Your task to perform on an android device: change keyboard looks Image 0: 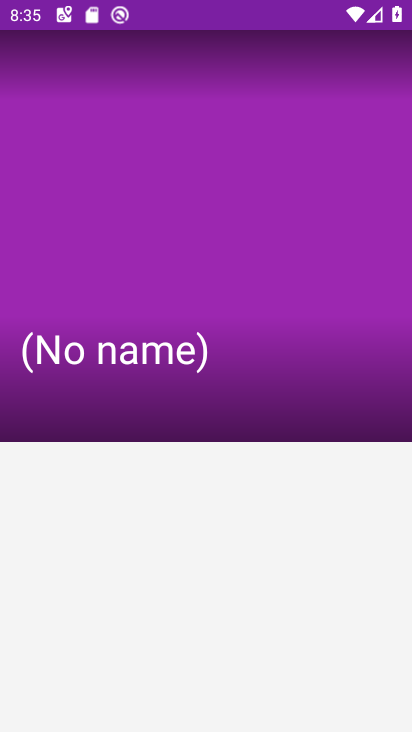
Step 0: press home button
Your task to perform on an android device: change keyboard looks Image 1: 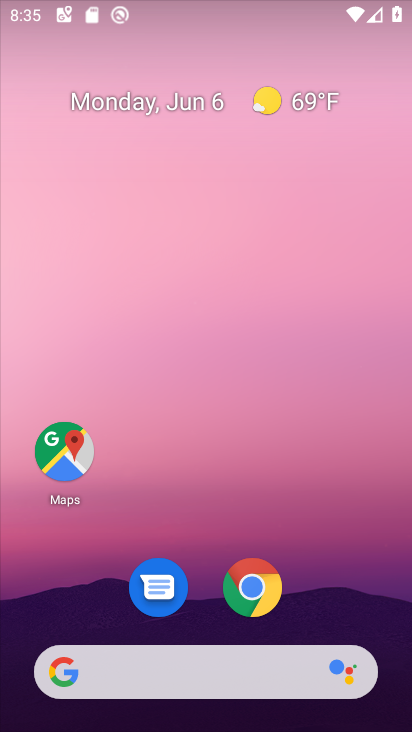
Step 1: drag from (310, 529) to (310, 236)
Your task to perform on an android device: change keyboard looks Image 2: 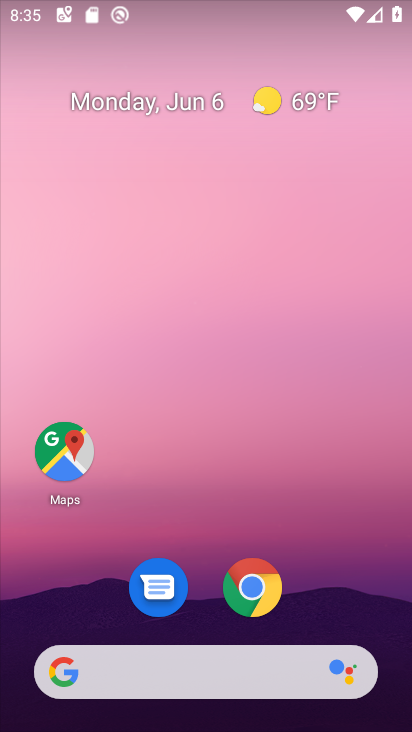
Step 2: drag from (315, 580) to (301, 174)
Your task to perform on an android device: change keyboard looks Image 3: 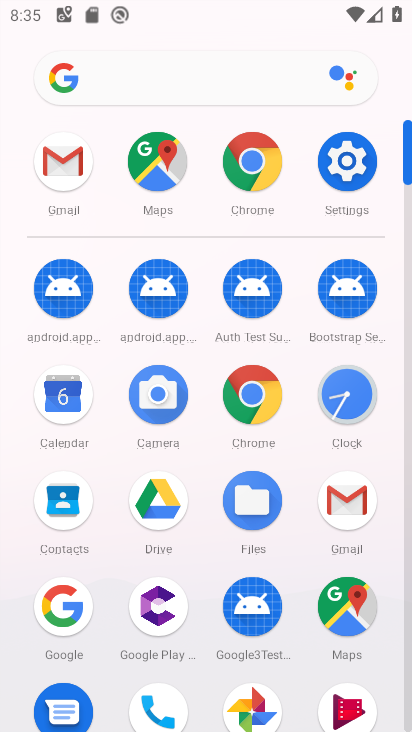
Step 3: click (319, 169)
Your task to perform on an android device: change keyboard looks Image 4: 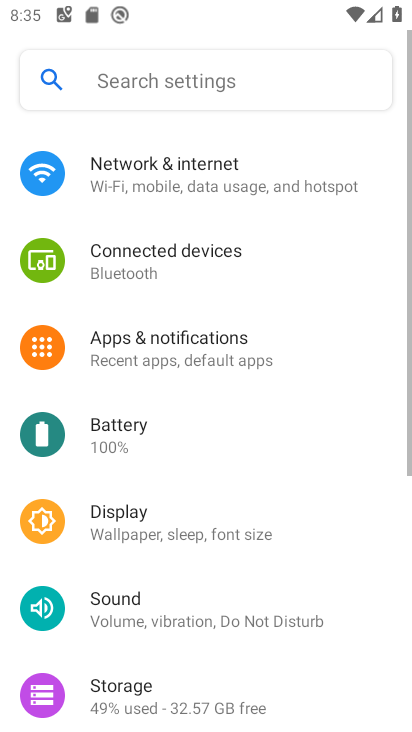
Step 4: drag from (191, 651) to (268, 265)
Your task to perform on an android device: change keyboard looks Image 5: 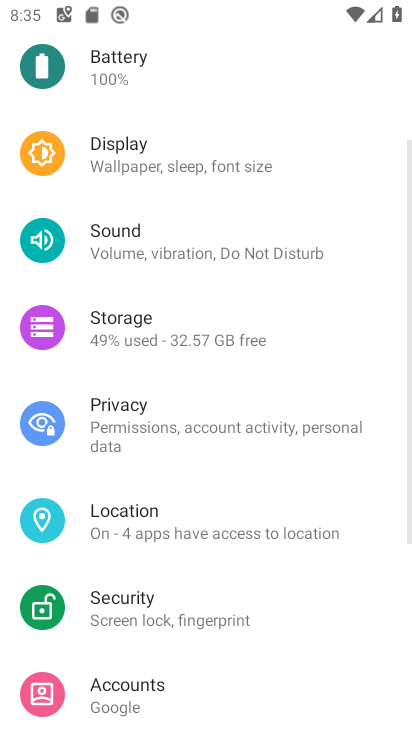
Step 5: drag from (237, 652) to (280, 313)
Your task to perform on an android device: change keyboard looks Image 6: 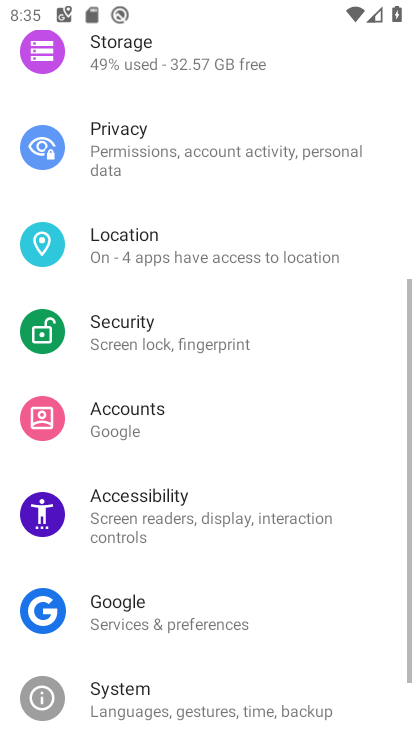
Step 6: drag from (226, 668) to (247, 349)
Your task to perform on an android device: change keyboard looks Image 7: 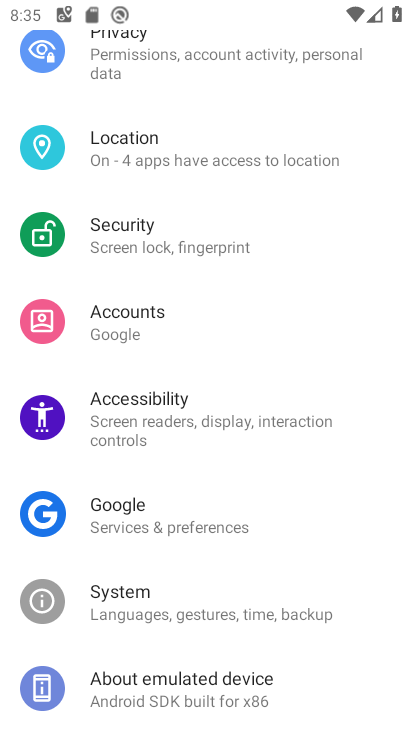
Step 7: click (182, 688)
Your task to perform on an android device: change keyboard looks Image 8: 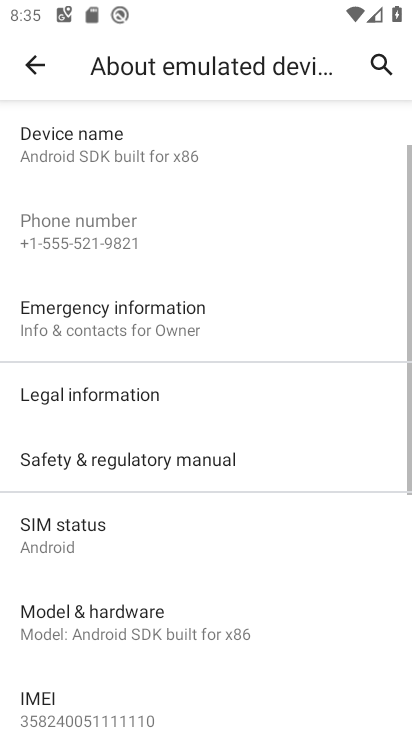
Step 8: press back button
Your task to perform on an android device: change keyboard looks Image 9: 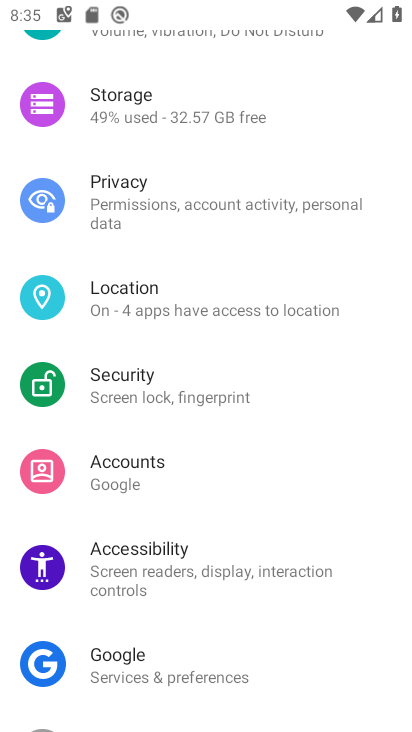
Step 9: click (204, 624)
Your task to perform on an android device: change keyboard looks Image 10: 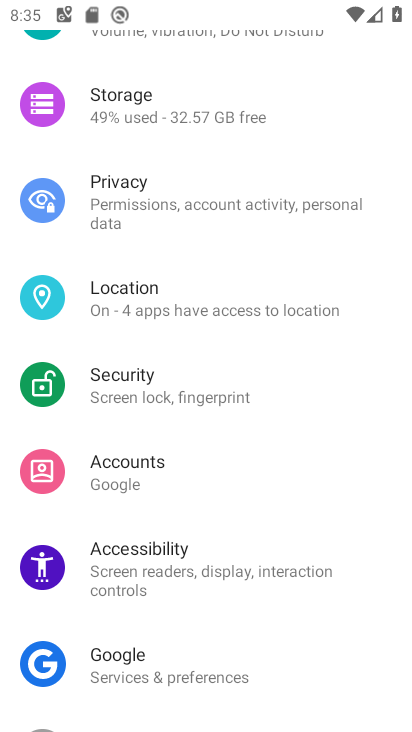
Step 10: press back button
Your task to perform on an android device: change keyboard looks Image 11: 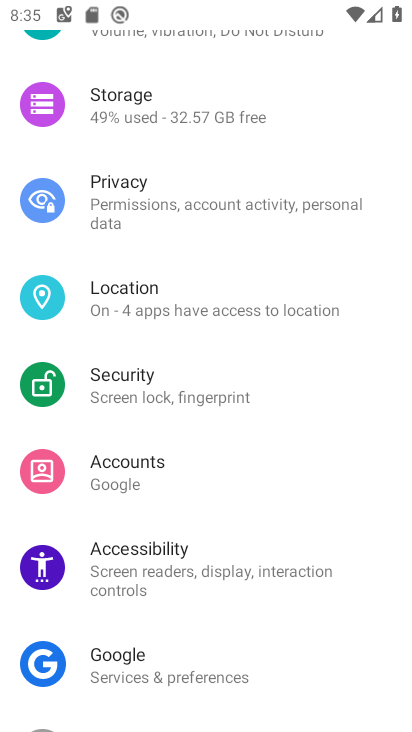
Step 11: drag from (296, 659) to (324, 429)
Your task to perform on an android device: change keyboard looks Image 12: 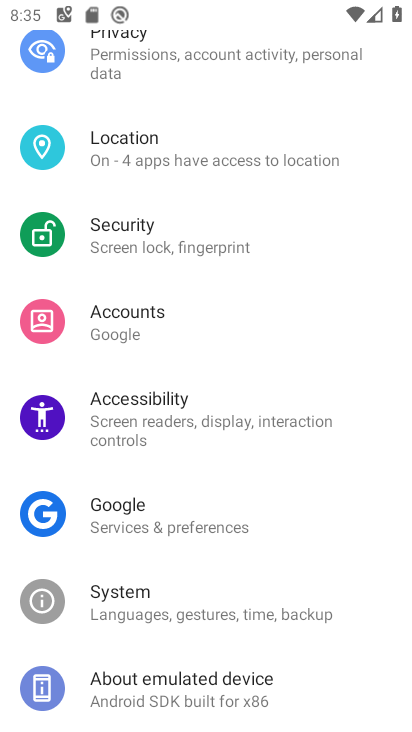
Step 12: click (217, 609)
Your task to perform on an android device: change keyboard looks Image 13: 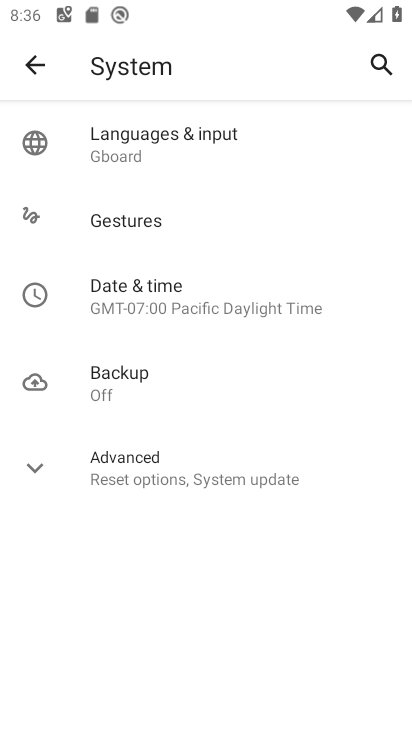
Step 13: click (193, 133)
Your task to perform on an android device: change keyboard looks Image 14: 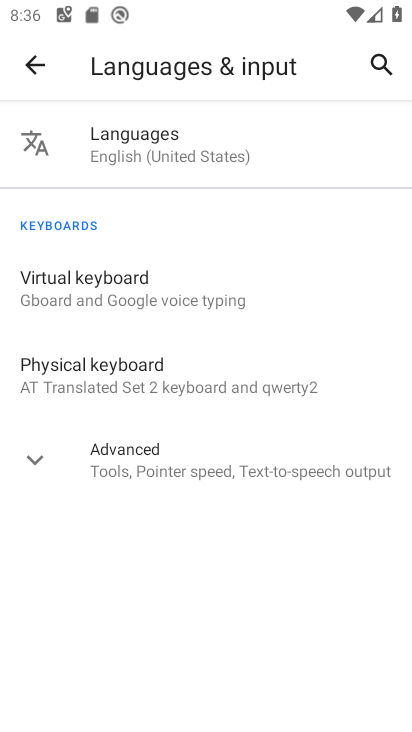
Step 14: click (100, 281)
Your task to perform on an android device: change keyboard looks Image 15: 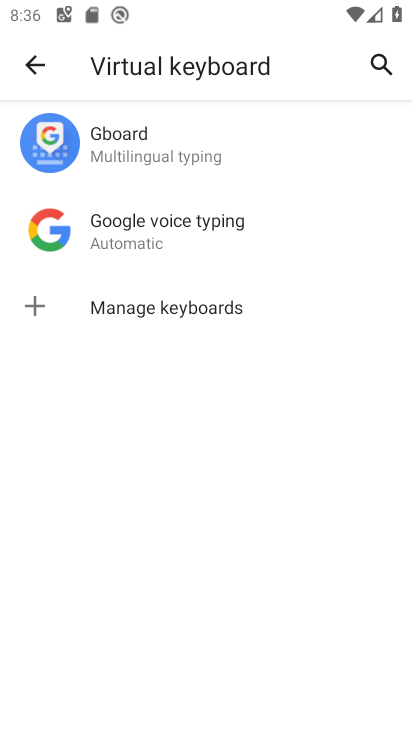
Step 15: click (153, 156)
Your task to perform on an android device: change keyboard looks Image 16: 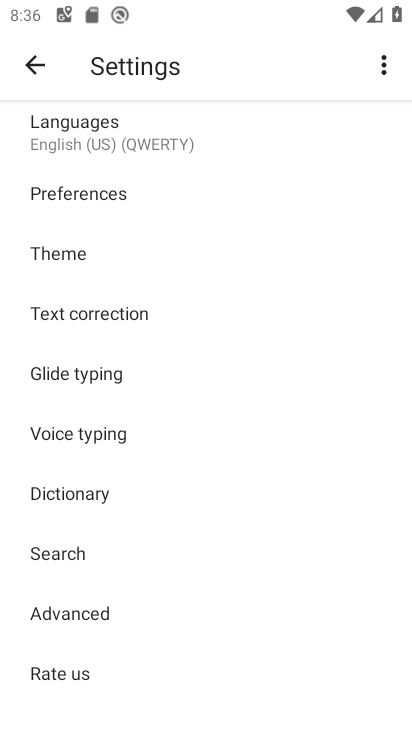
Step 16: click (114, 256)
Your task to perform on an android device: change keyboard looks Image 17: 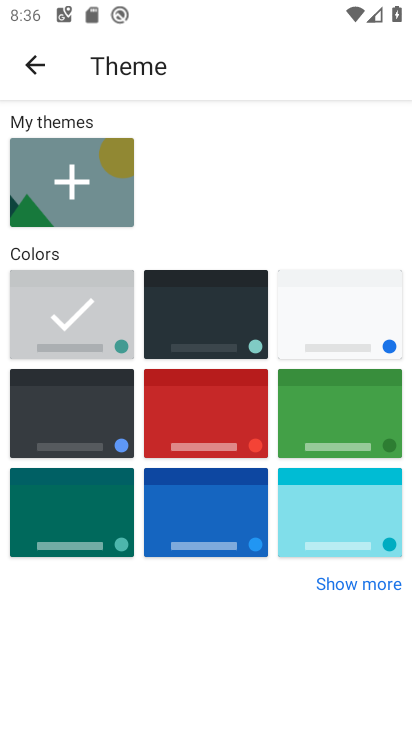
Step 17: click (224, 318)
Your task to perform on an android device: change keyboard looks Image 18: 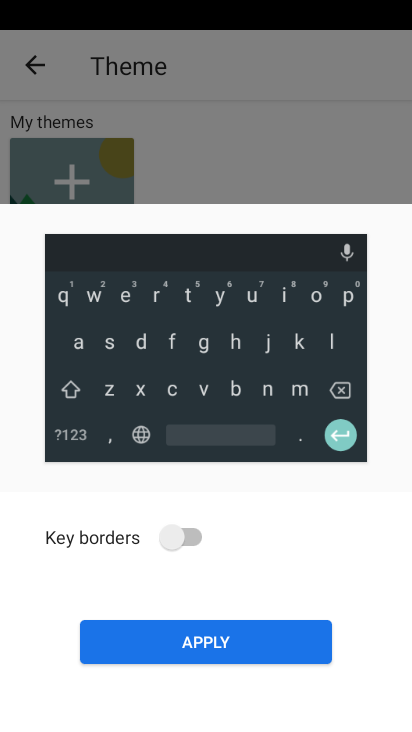
Step 18: click (206, 642)
Your task to perform on an android device: change keyboard looks Image 19: 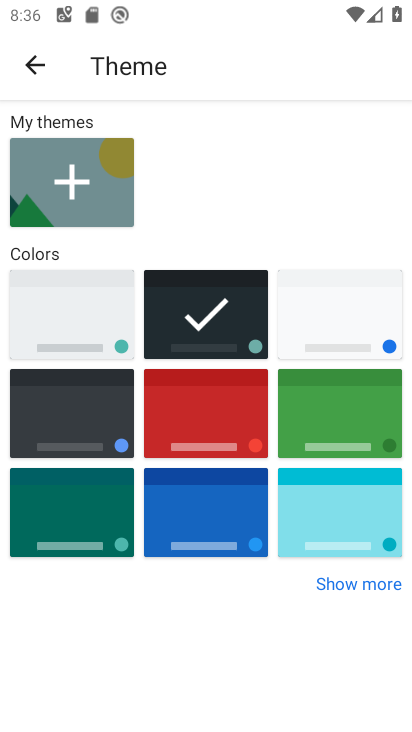
Step 19: task complete